Your task to perform on an android device: turn on location history Image 0: 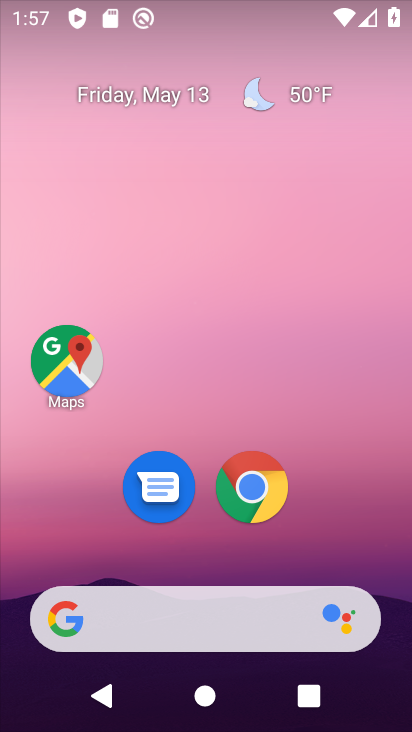
Step 0: drag from (92, 588) to (199, 76)
Your task to perform on an android device: turn on location history Image 1: 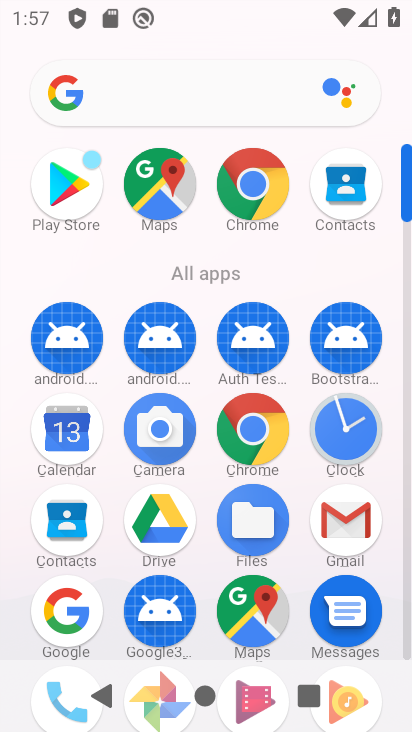
Step 1: drag from (182, 514) to (260, 287)
Your task to perform on an android device: turn on location history Image 2: 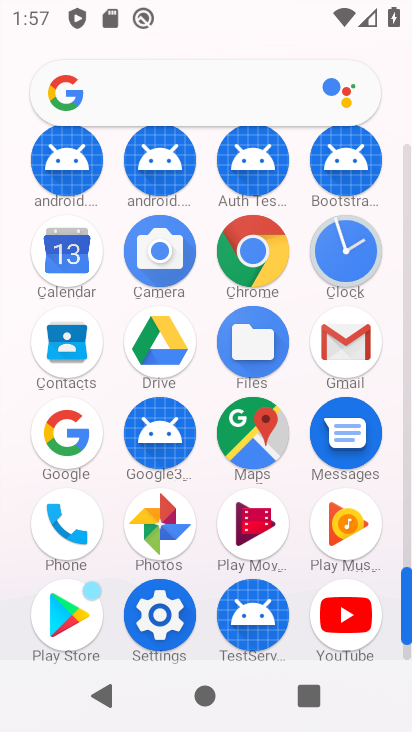
Step 2: click (172, 618)
Your task to perform on an android device: turn on location history Image 3: 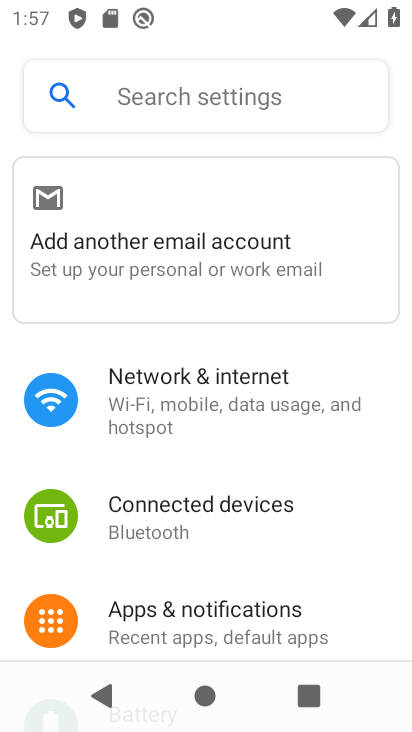
Step 3: drag from (173, 574) to (320, 195)
Your task to perform on an android device: turn on location history Image 4: 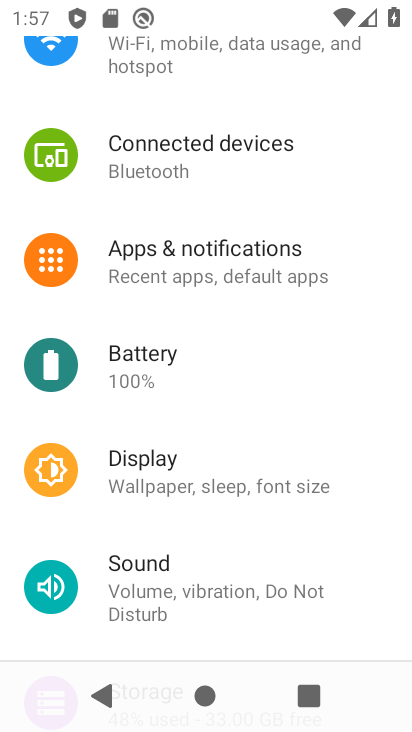
Step 4: drag from (177, 548) to (281, 231)
Your task to perform on an android device: turn on location history Image 5: 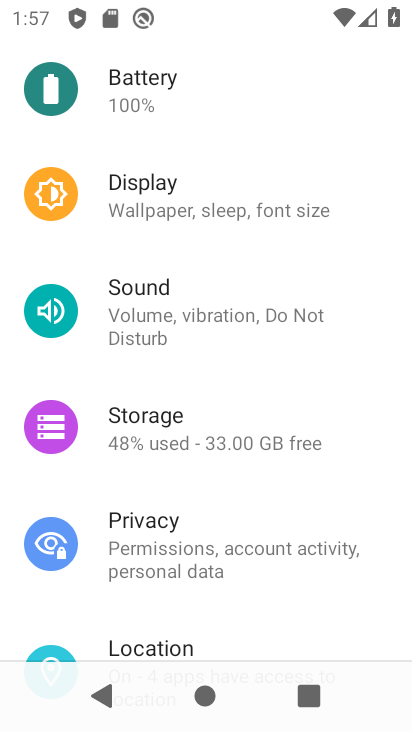
Step 5: drag from (120, 592) to (223, 390)
Your task to perform on an android device: turn on location history Image 6: 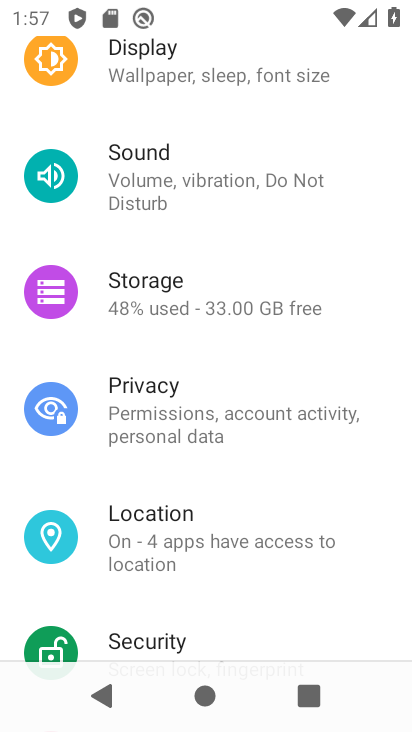
Step 6: click (161, 537)
Your task to perform on an android device: turn on location history Image 7: 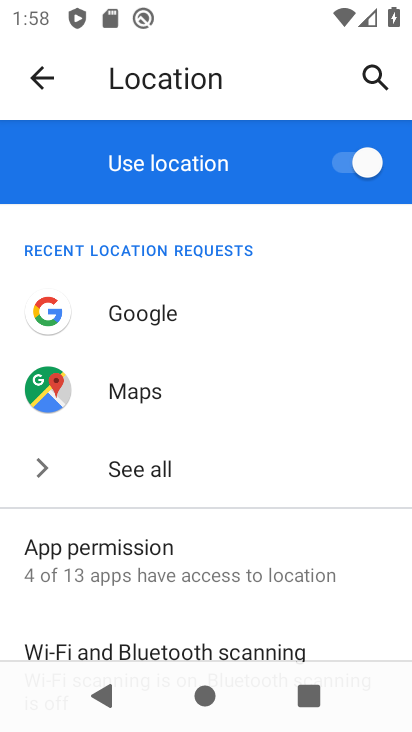
Step 7: drag from (148, 641) to (376, 281)
Your task to perform on an android device: turn on location history Image 8: 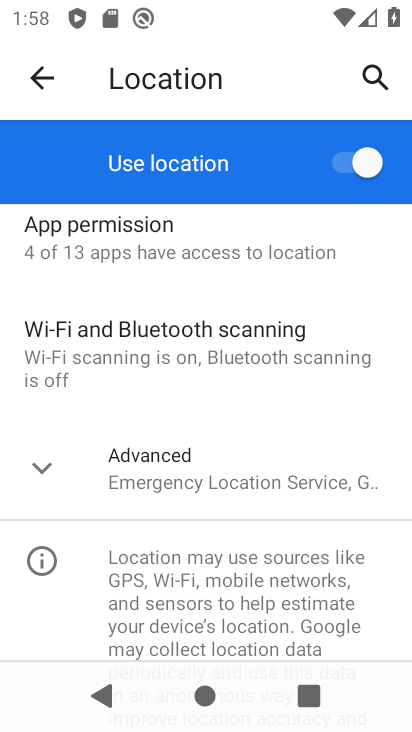
Step 8: click (221, 484)
Your task to perform on an android device: turn on location history Image 9: 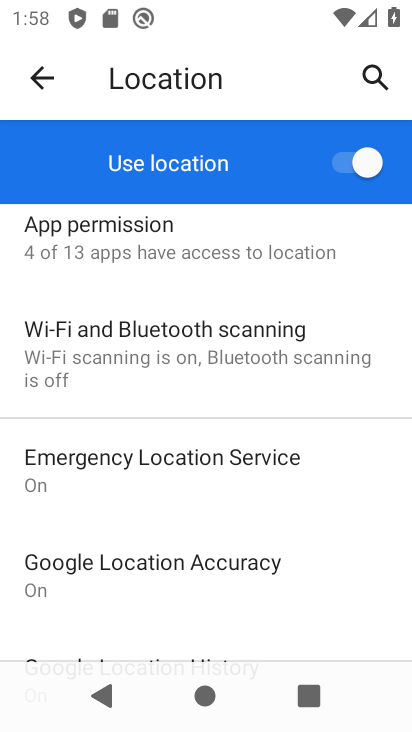
Step 9: drag from (197, 591) to (338, 323)
Your task to perform on an android device: turn on location history Image 10: 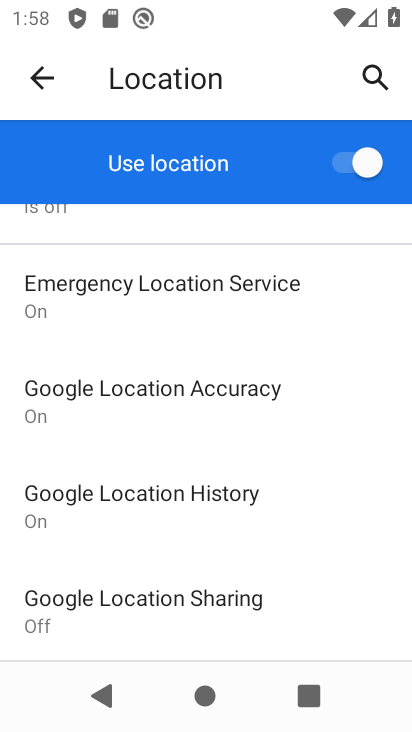
Step 10: click (233, 516)
Your task to perform on an android device: turn on location history Image 11: 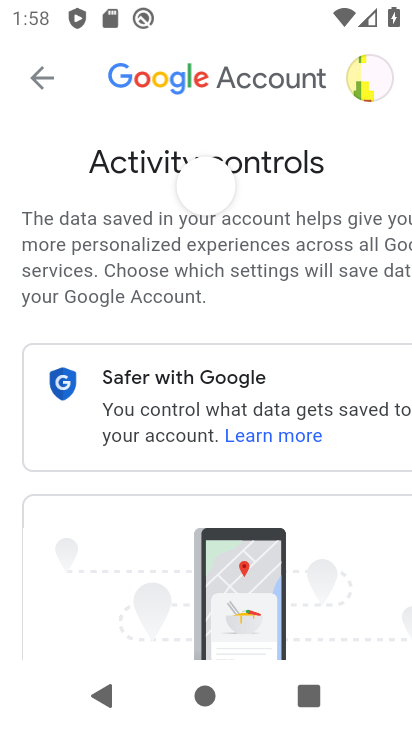
Step 11: task complete